Your task to perform on an android device: toggle javascript in the chrome app Image 0: 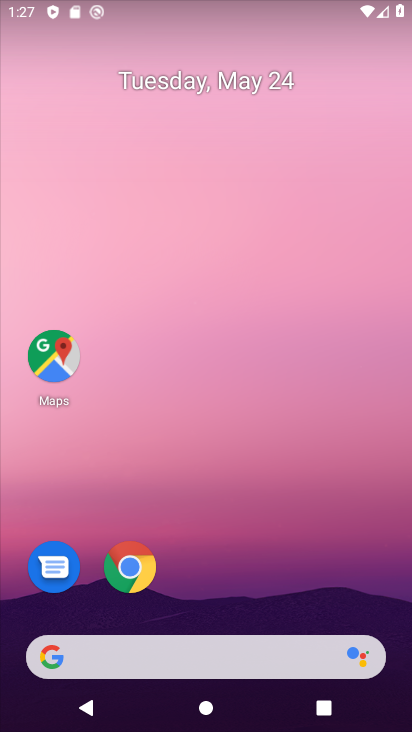
Step 0: click (140, 566)
Your task to perform on an android device: toggle javascript in the chrome app Image 1: 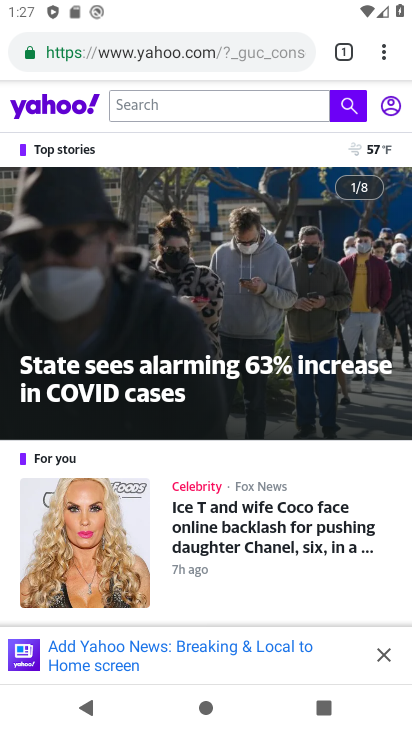
Step 1: click (388, 61)
Your task to perform on an android device: toggle javascript in the chrome app Image 2: 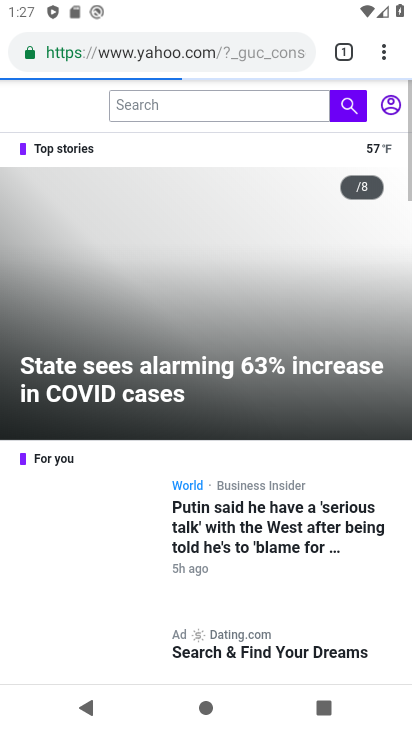
Step 2: click (391, 53)
Your task to perform on an android device: toggle javascript in the chrome app Image 3: 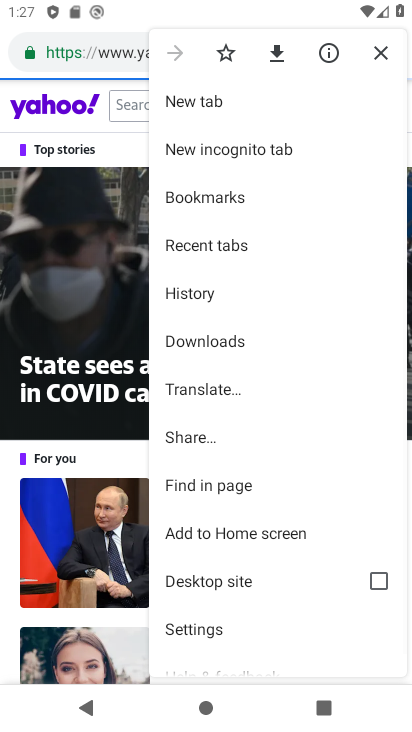
Step 3: drag from (240, 598) to (258, 263)
Your task to perform on an android device: toggle javascript in the chrome app Image 4: 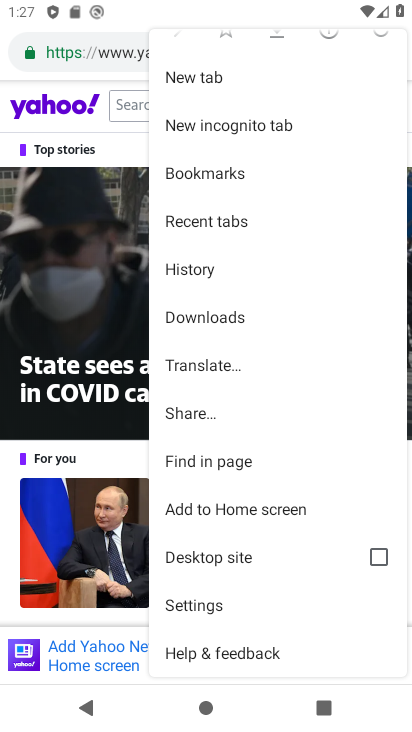
Step 4: click (195, 615)
Your task to perform on an android device: toggle javascript in the chrome app Image 5: 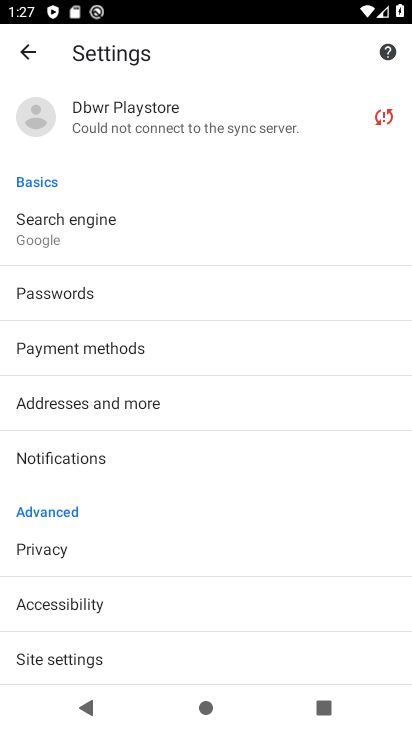
Step 5: drag from (102, 559) to (158, 319)
Your task to perform on an android device: toggle javascript in the chrome app Image 6: 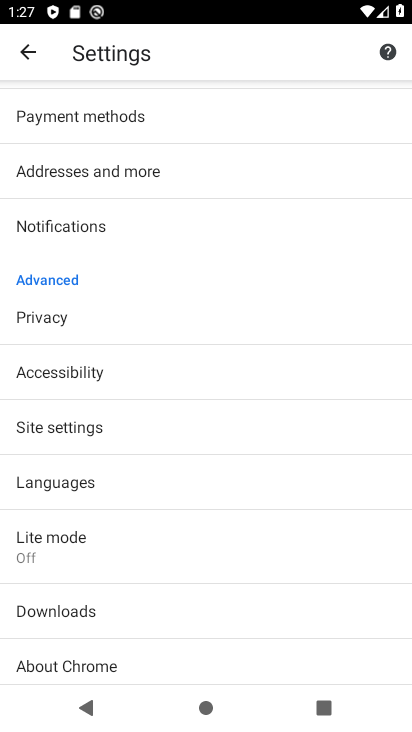
Step 6: click (83, 426)
Your task to perform on an android device: toggle javascript in the chrome app Image 7: 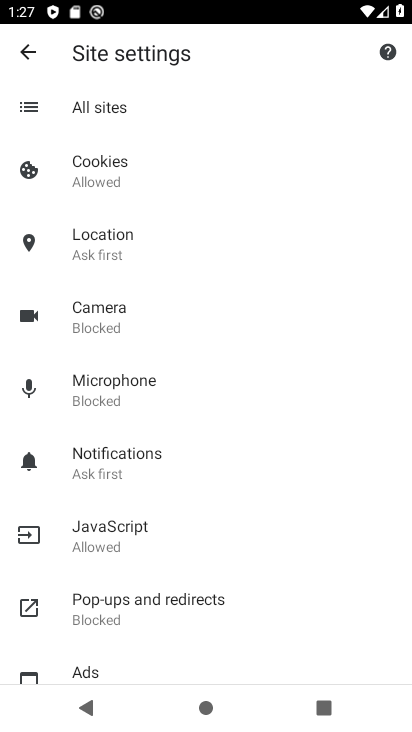
Step 7: click (156, 539)
Your task to perform on an android device: toggle javascript in the chrome app Image 8: 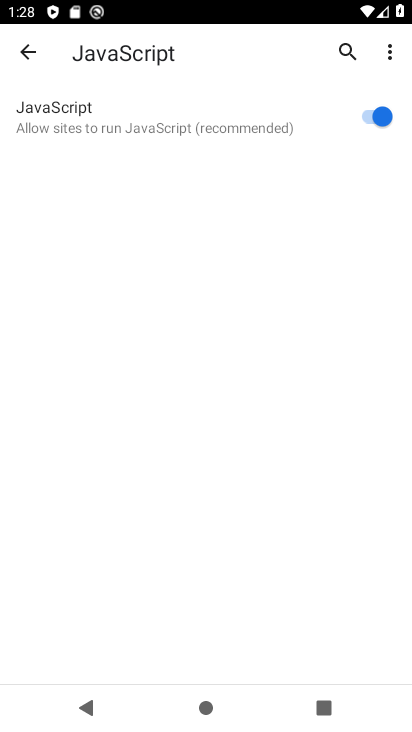
Step 8: click (355, 118)
Your task to perform on an android device: toggle javascript in the chrome app Image 9: 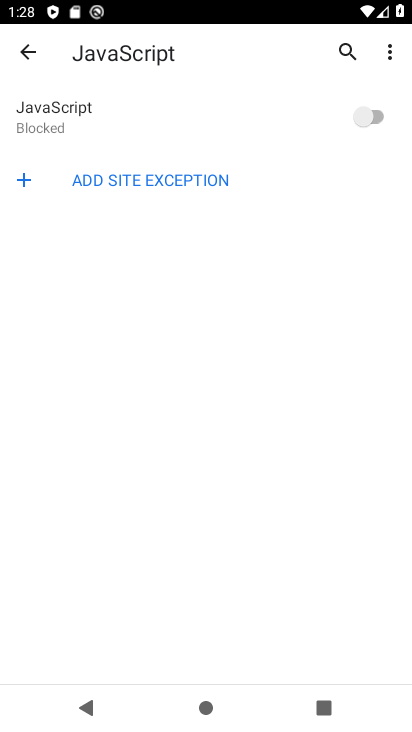
Step 9: task complete